Your task to perform on an android device: When is my next meeting? Image 0: 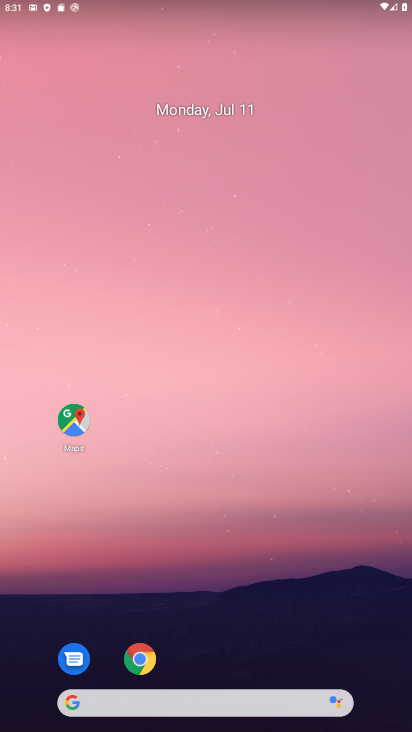
Step 0: drag from (187, 726) to (201, 0)
Your task to perform on an android device: When is my next meeting? Image 1: 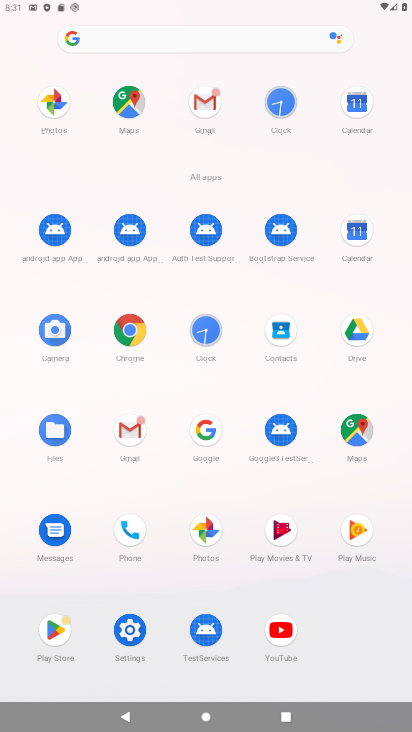
Step 1: click (353, 233)
Your task to perform on an android device: When is my next meeting? Image 2: 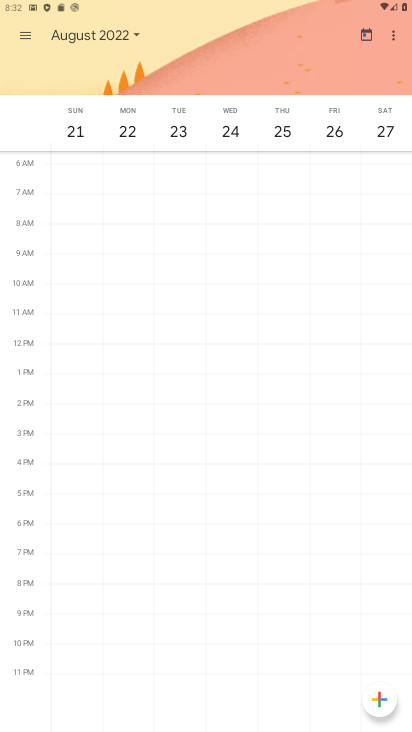
Step 2: click (136, 36)
Your task to perform on an android device: When is my next meeting? Image 3: 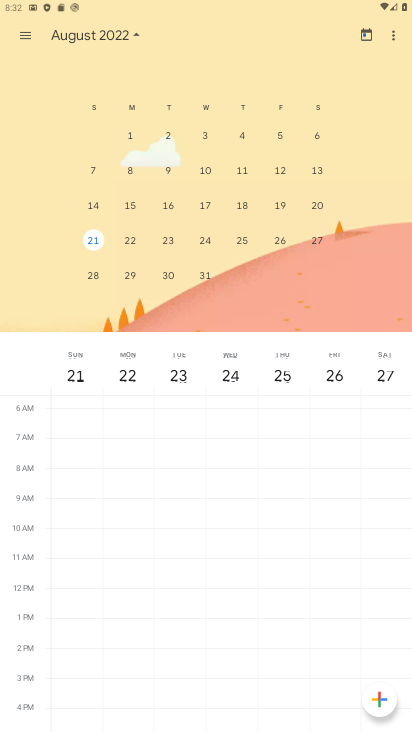
Step 3: drag from (100, 211) to (269, 216)
Your task to perform on an android device: When is my next meeting? Image 4: 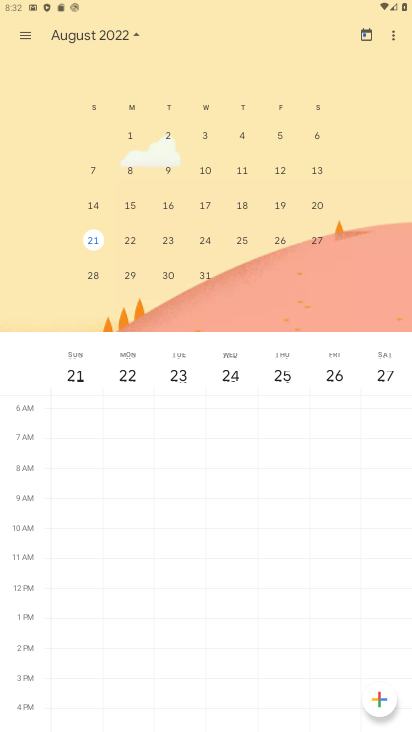
Step 4: click (104, 193)
Your task to perform on an android device: When is my next meeting? Image 5: 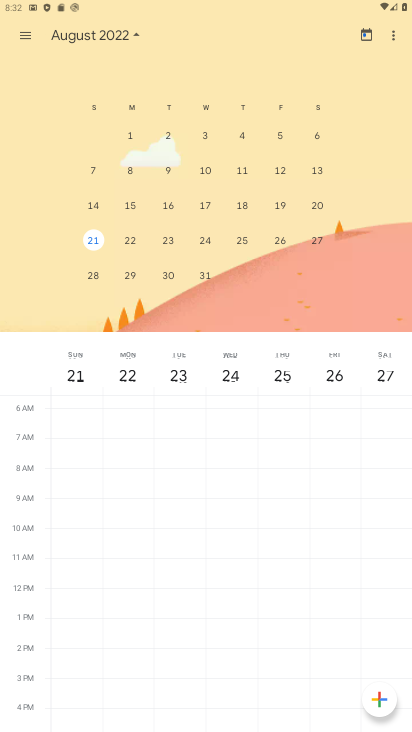
Step 5: drag from (271, 193) to (332, 193)
Your task to perform on an android device: When is my next meeting? Image 6: 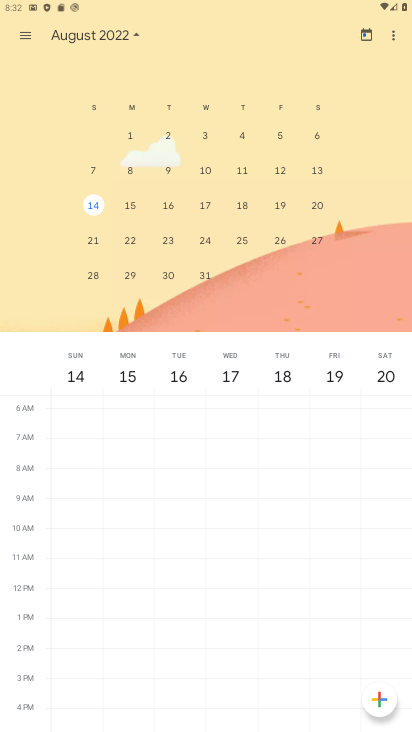
Step 6: drag from (109, 175) to (367, 173)
Your task to perform on an android device: When is my next meeting? Image 7: 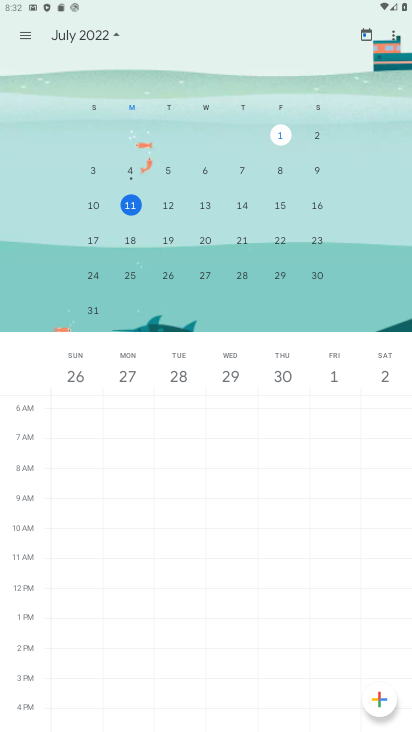
Step 7: click (163, 200)
Your task to perform on an android device: When is my next meeting? Image 8: 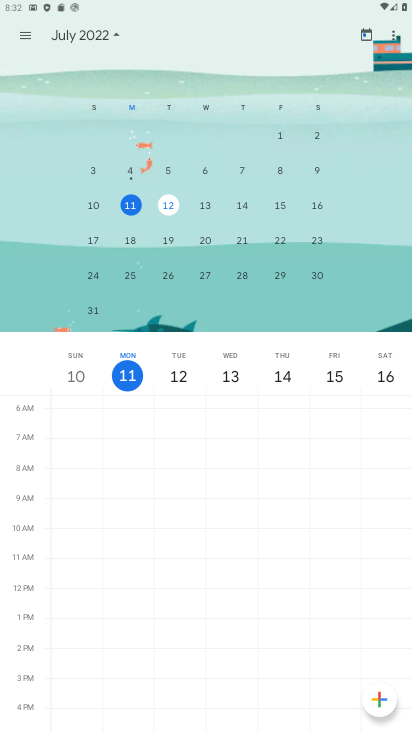
Step 8: click (164, 201)
Your task to perform on an android device: When is my next meeting? Image 9: 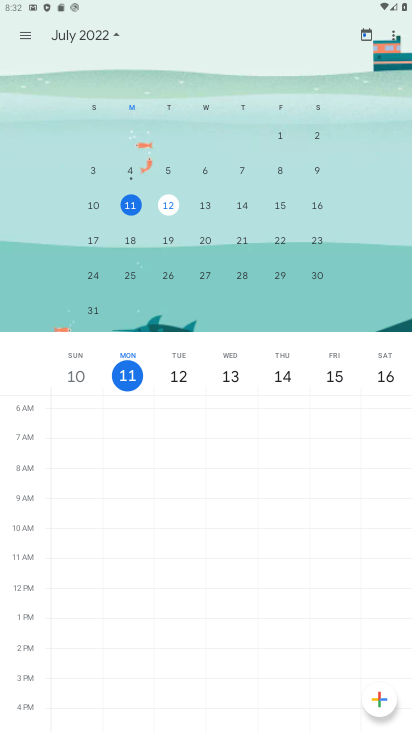
Step 9: click (172, 376)
Your task to perform on an android device: When is my next meeting? Image 10: 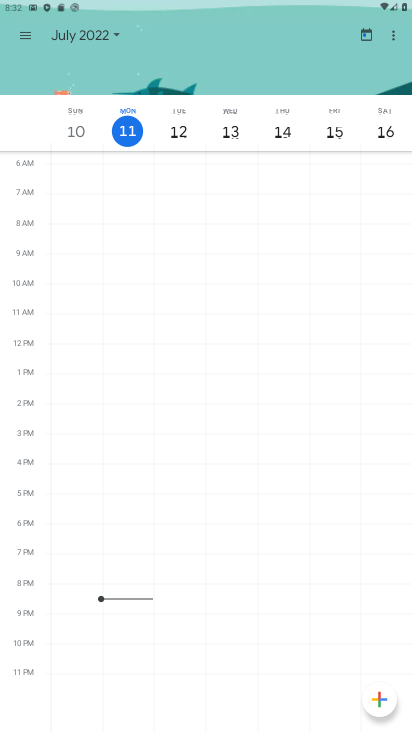
Step 10: task complete